Your task to perform on an android device: Open the stopwatch Image 0: 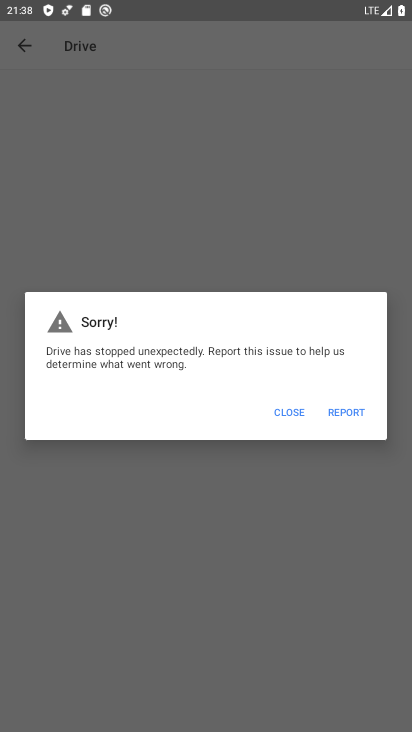
Step 0: press home button
Your task to perform on an android device: Open the stopwatch Image 1: 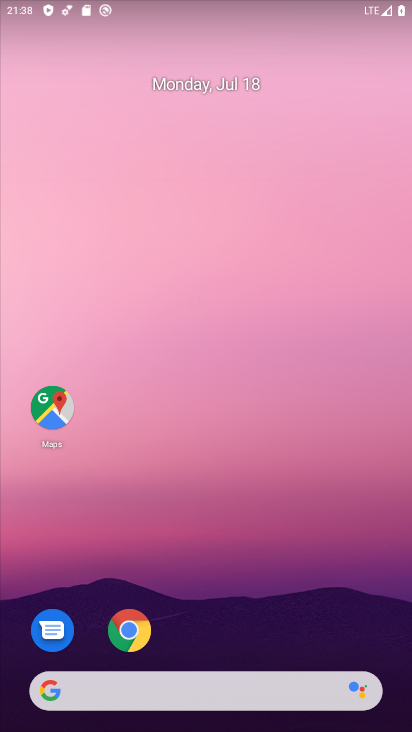
Step 1: drag from (235, 655) to (150, 168)
Your task to perform on an android device: Open the stopwatch Image 2: 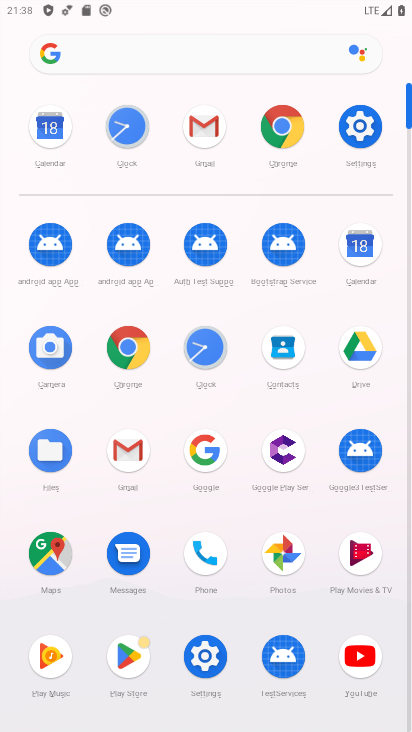
Step 2: click (214, 339)
Your task to perform on an android device: Open the stopwatch Image 3: 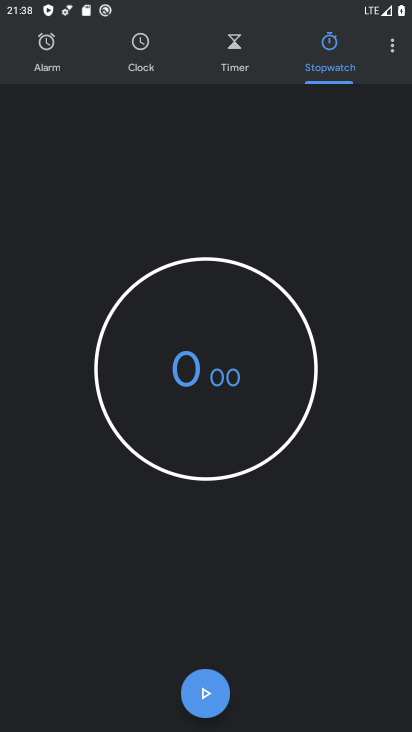
Step 3: click (321, 60)
Your task to perform on an android device: Open the stopwatch Image 4: 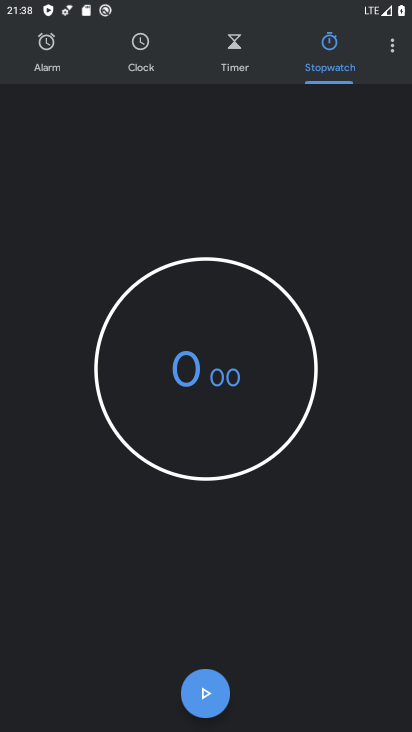
Step 4: task complete